Your task to perform on an android device: check battery use Image 0: 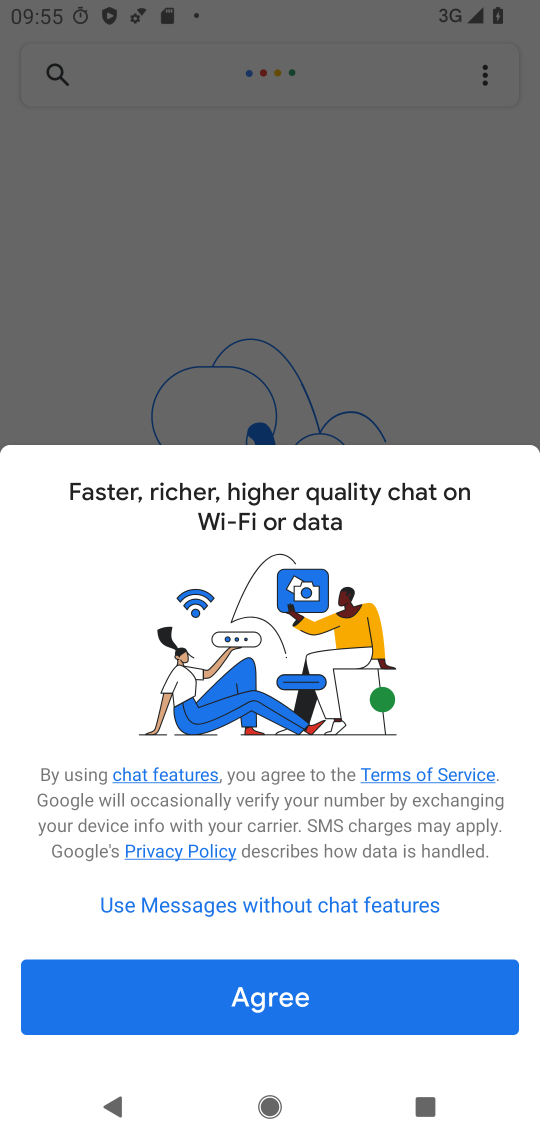
Step 0: press home button
Your task to perform on an android device: check battery use Image 1: 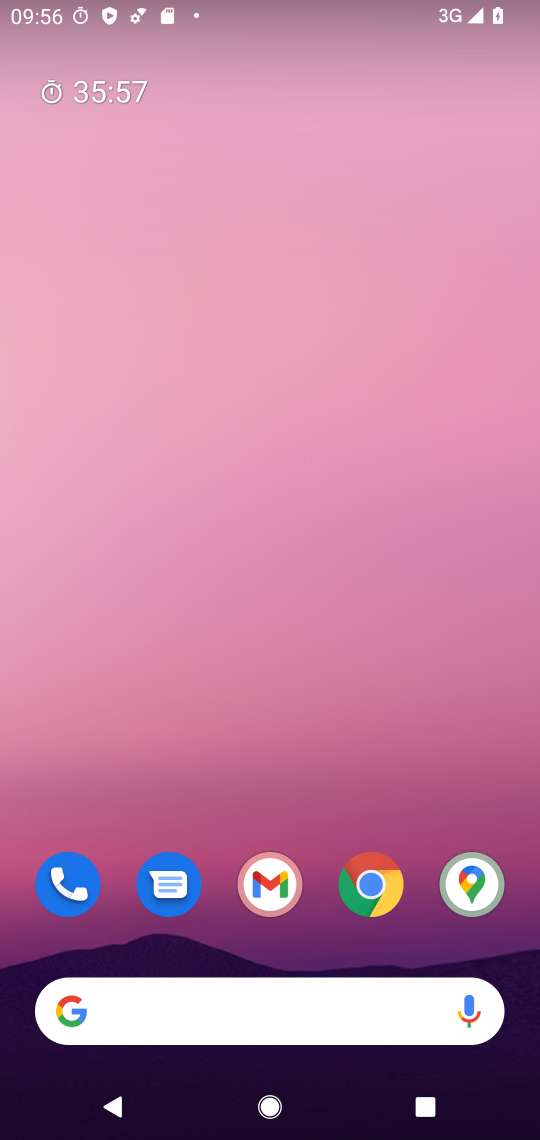
Step 1: drag from (279, 610) to (286, 227)
Your task to perform on an android device: check battery use Image 2: 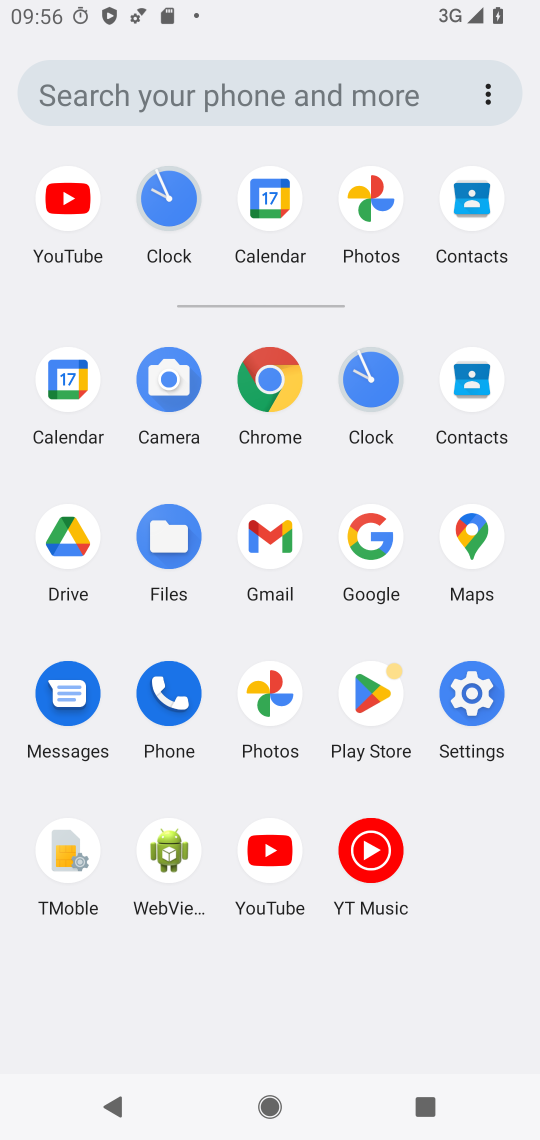
Step 2: click (476, 689)
Your task to perform on an android device: check battery use Image 3: 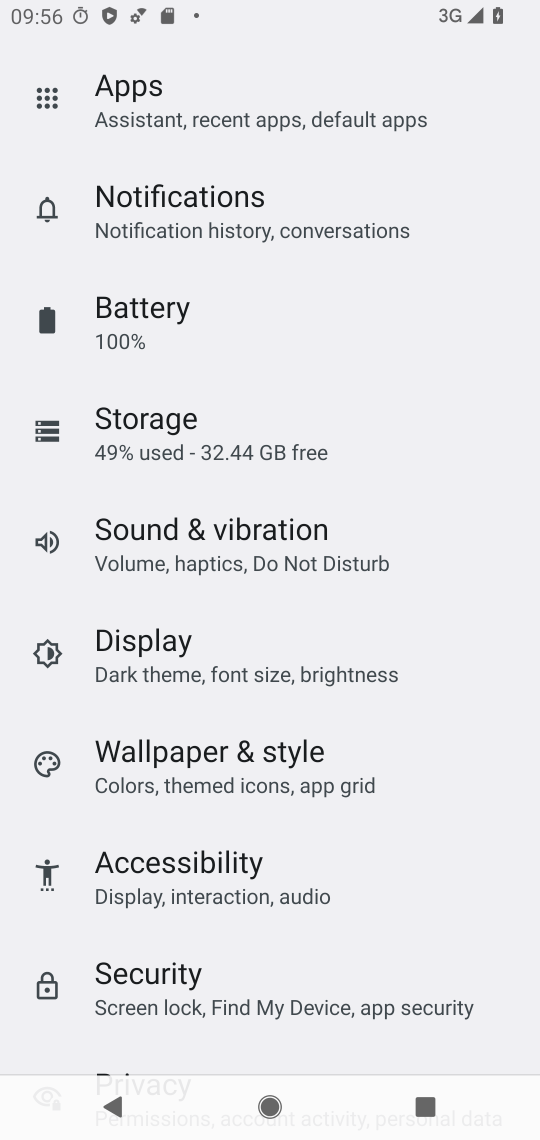
Step 3: click (162, 342)
Your task to perform on an android device: check battery use Image 4: 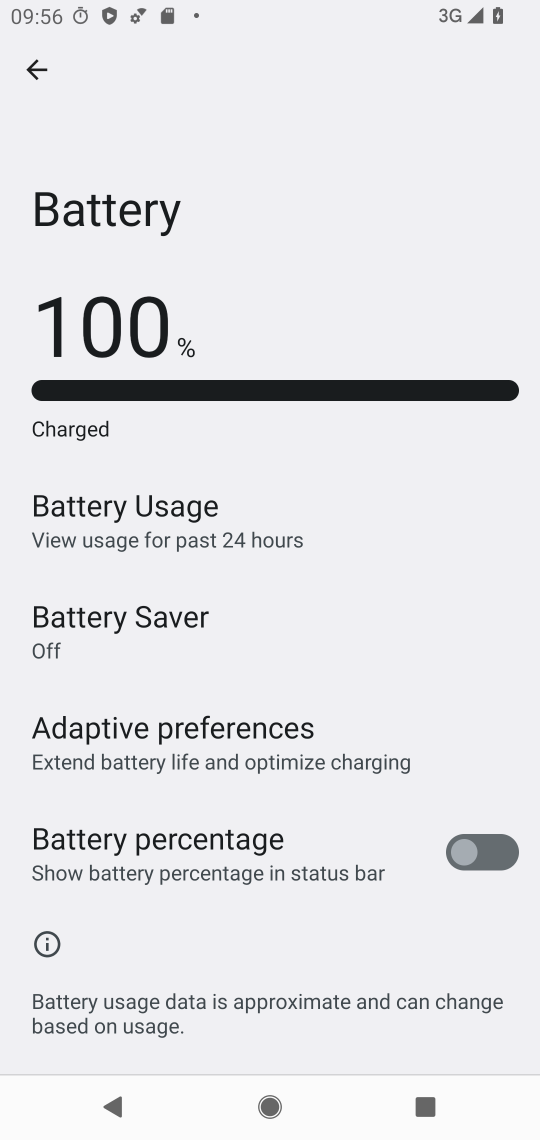
Step 4: click (268, 552)
Your task to perform on an android device: check battery use Image 5: 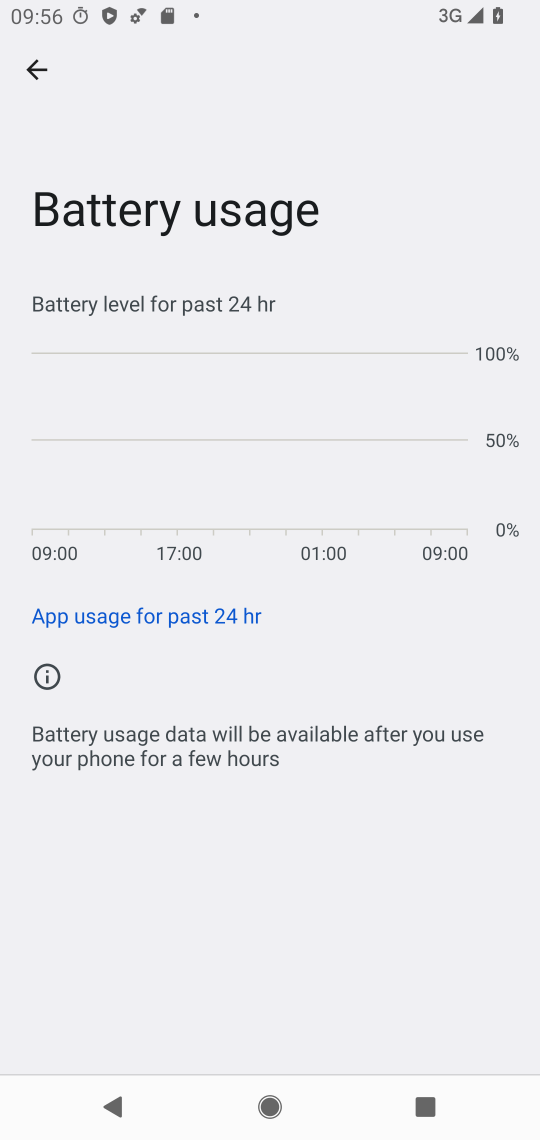
Step 5: task complete